Your task to perform on an android device: open a new tab in the chrome app Image 0: 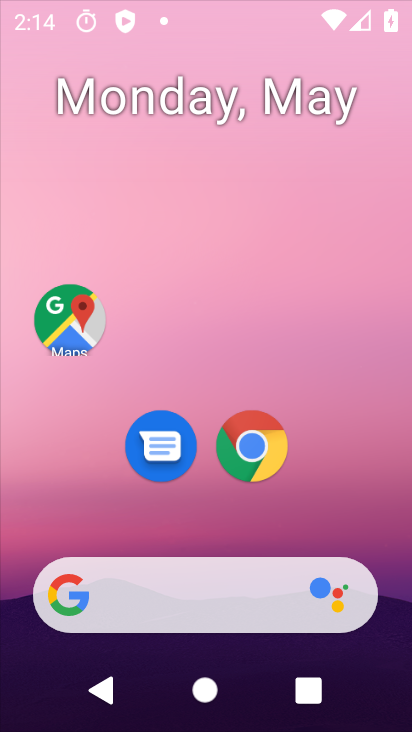
Step 0: drag from (182, 583) to (273, 83)
Your task to perform on an android device: open a new tab in the chrome app Image 1: 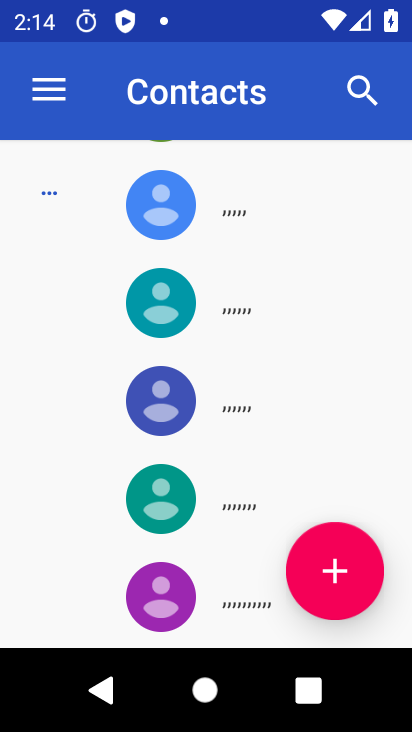
Step 1: press home button
Your task to perform on an android device: open a new tab in the chrome app Image 2: 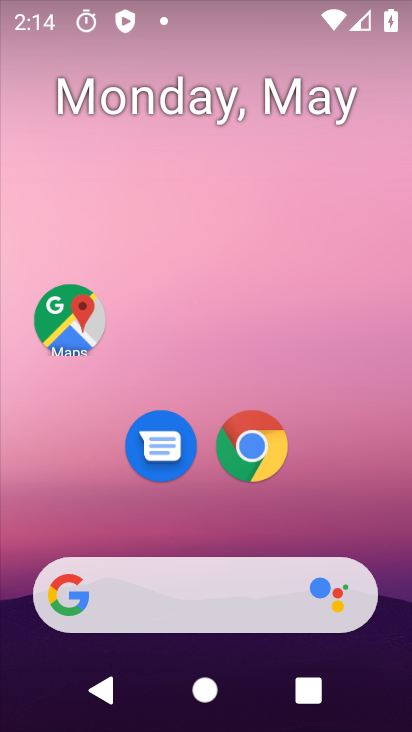
Step 2: click (262, 454)
Your task to perform on an android device: open a new tab in the chrome app Image 3: 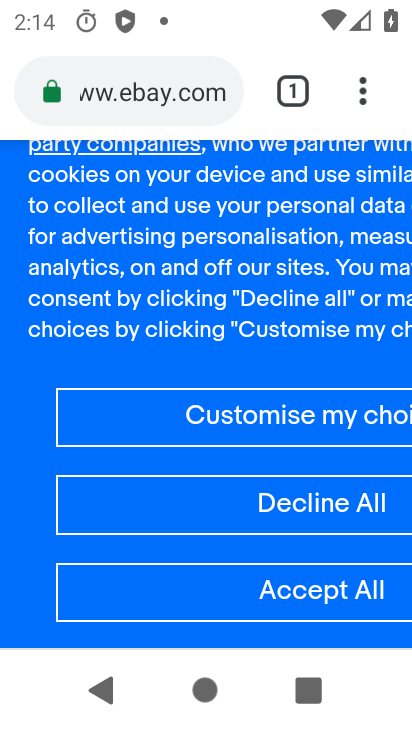
Step 3: task complete